Your task to perform on an android device: toggle data saver in the chrome app Image 0: 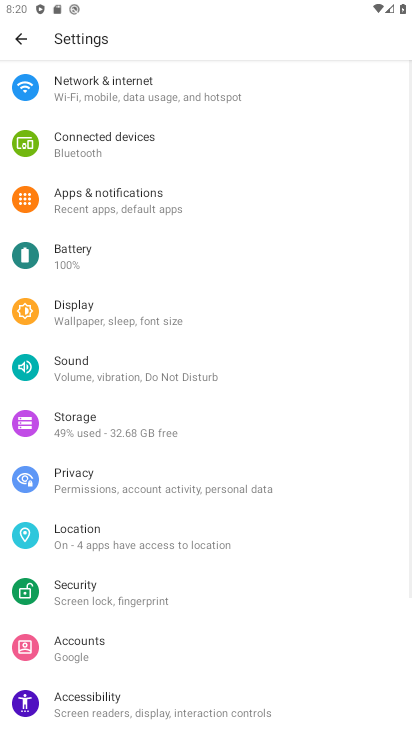
Step 0: press home button
Your task to perform on an android device: toggle data saver in the chrome app Image 1: 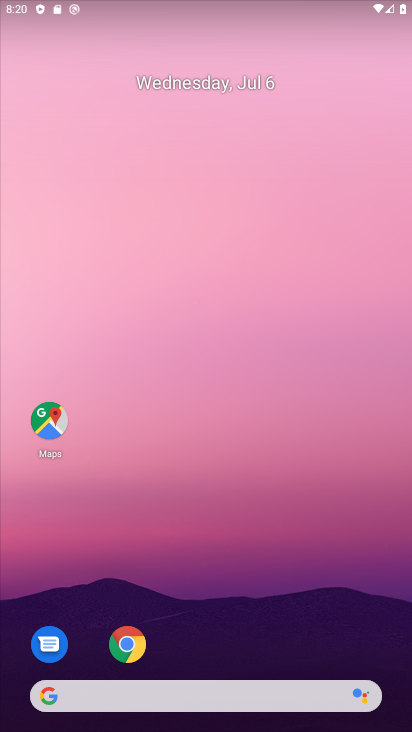
Step 1: click (140, 645)
Your task to perform on an android device: toggle data saver in the chrome app Image 2: 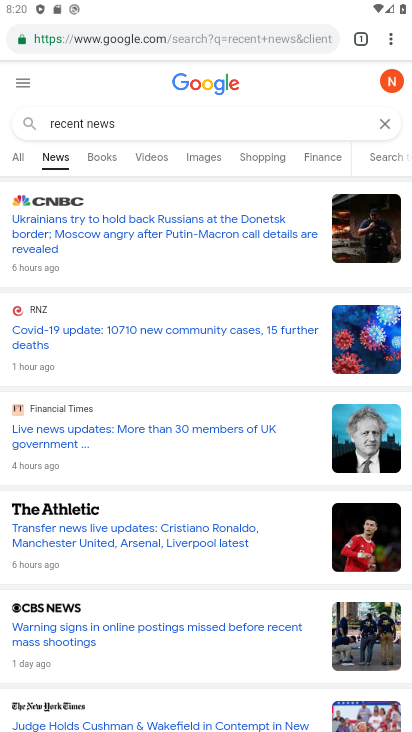
Step 2: click (385, 44)
Your task to perform on an android device: toggle data saver in the chrome app Image 3: 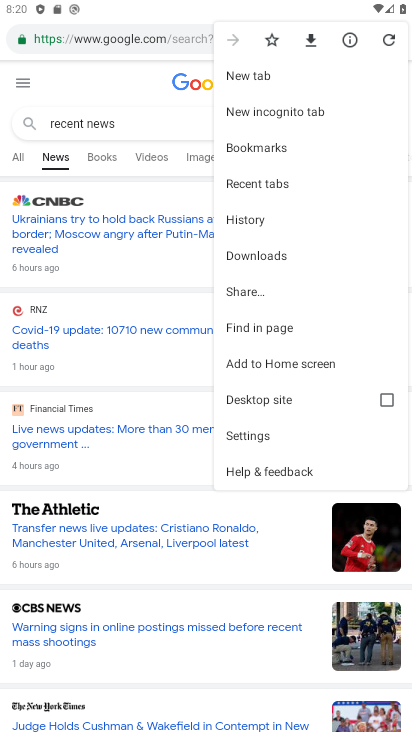
Step 3: click (251, 440)
Your task to perform on an android device: toggle data saver in the chrome app Image 4: 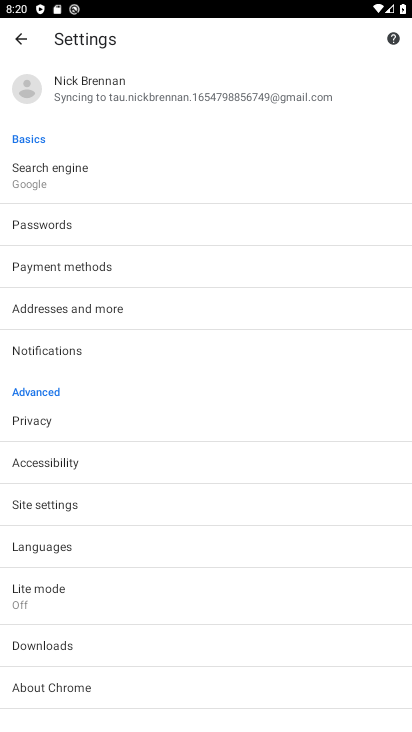
Step 4: drag from (133, 646) to (125, 343)
Your task to perform on an android device: toggle data saver in the chrome app Image 5: 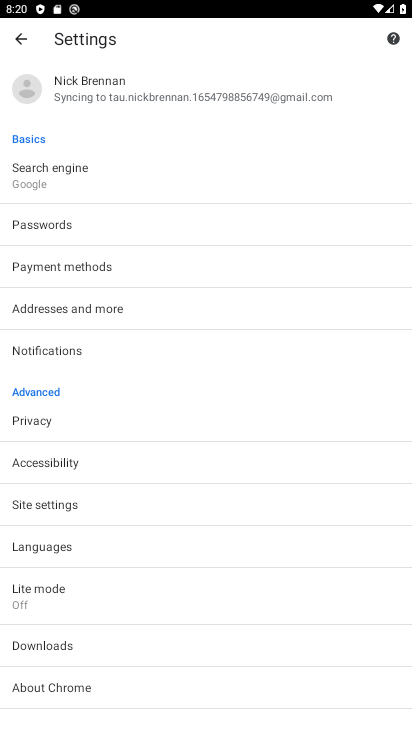
Step 5: click (115, 579)
Your task to perform on an android device: toggle data saver in the chrome app Image 6: 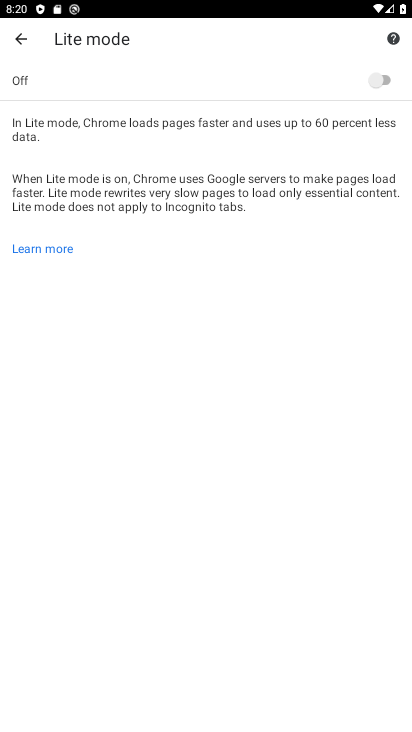
Step 6: click (388, 69)
Your task to perform on an android device: toggle data saver in the chrome app Image 7: 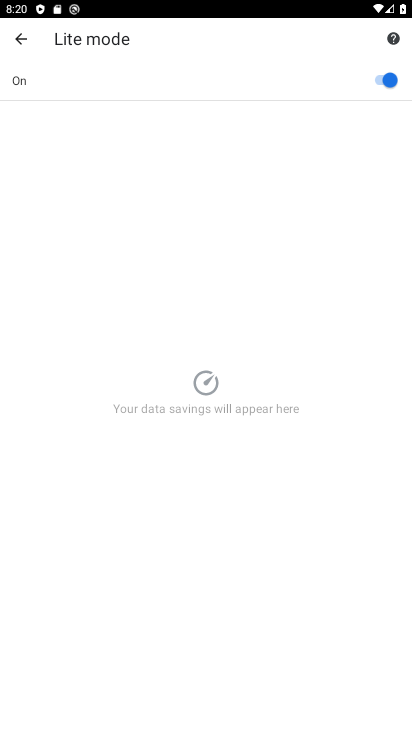
Step 7: task complete